Your task to perform on an android device: open the mobile data screen to see how much data has been used Image 0: 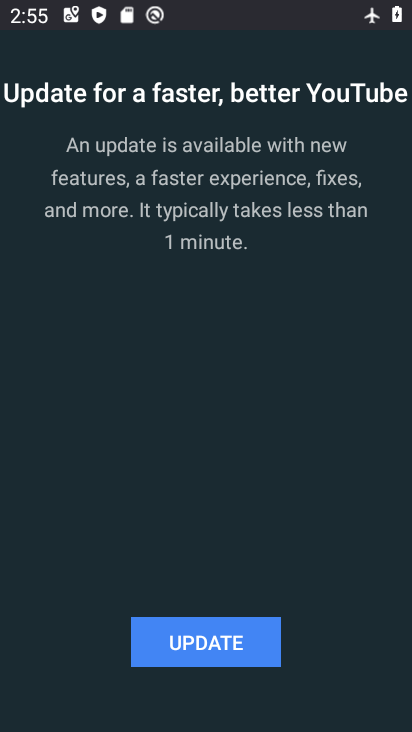
Step 0: press home button
Your task to perform on an android device: open the mobile data screen to see how much data has been used Image 1: 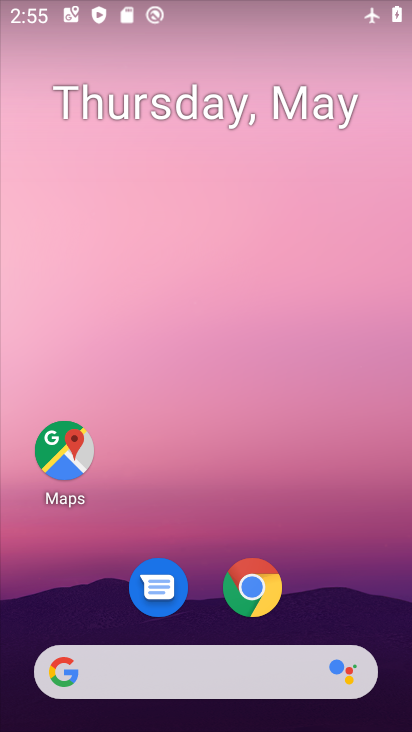
Step 1: drag from (266, 703) to (330, 174)
Your task to perform on an android device: open the mobile data screen to see how much data has been used Image 2: 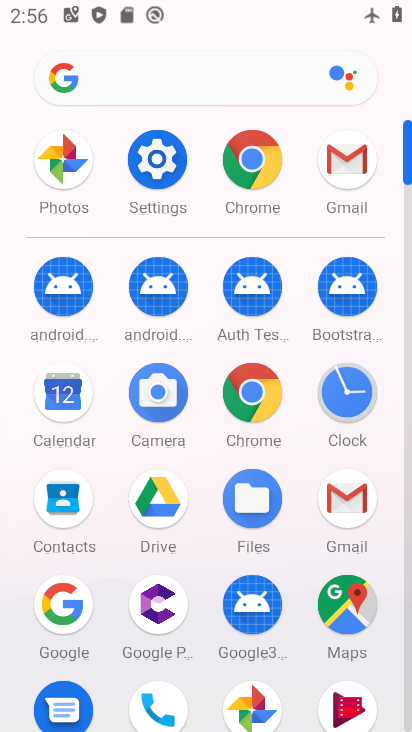
Step 2: click (175, 177)
Your task to perform on an android device: open the mobile data screen to see how much data has been used Image 3: 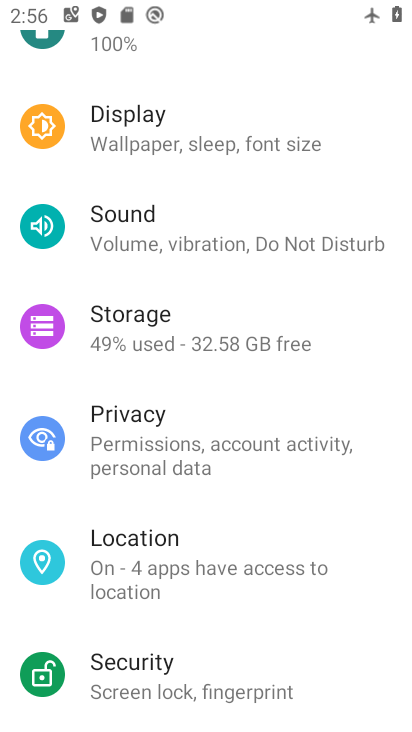
Step 3: drag from (215, 517) to (230, 318)
Your task to perform on an android device: open the mobile data screen to see how much data has been used Image 4: 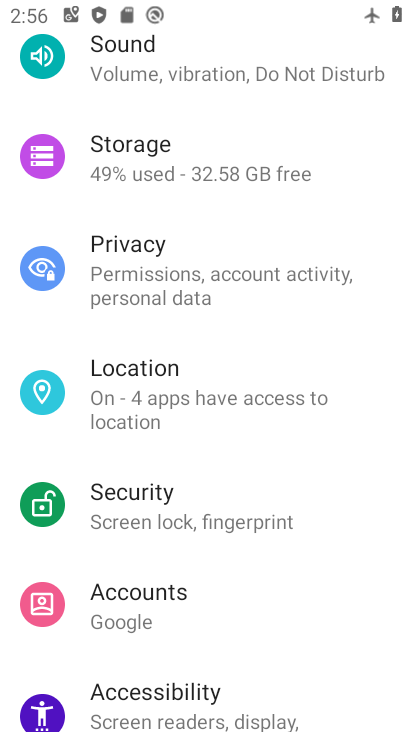
Step 4: drag from (221, 227) to (186, 715)
Your task to perform on an android device: open the mobile data screen to see how much data has been used Image 5: 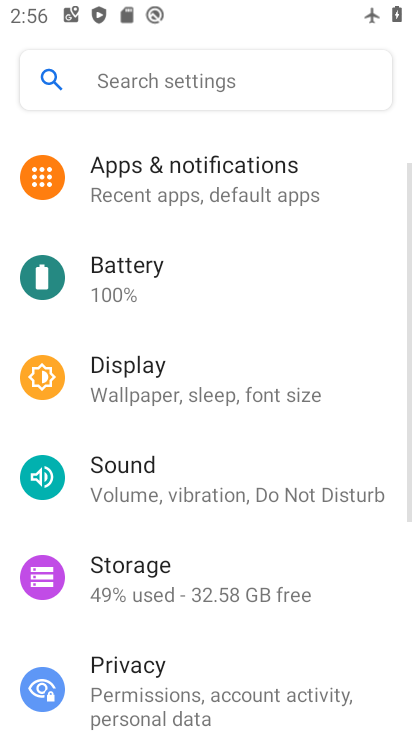
Step 5: drag from (206, 280) to (212, 605)
Your task to perform on an android device: open the mobile data screen to see how much data has been used Image 6: 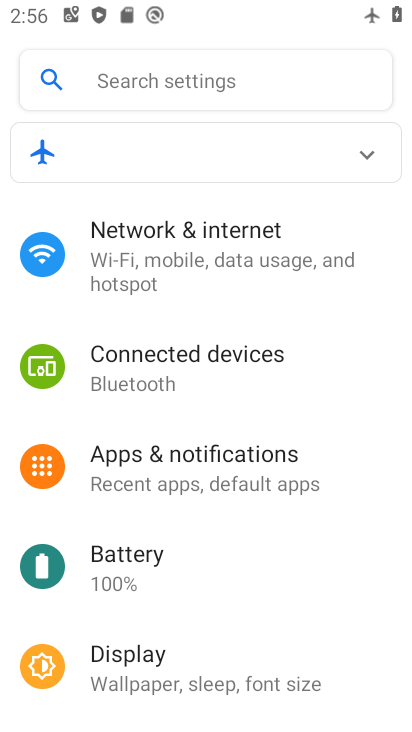
Step 6: click (228, 258)
Your task to perform on an android device: open the mobile data screen to see how much data has been used Image 7: 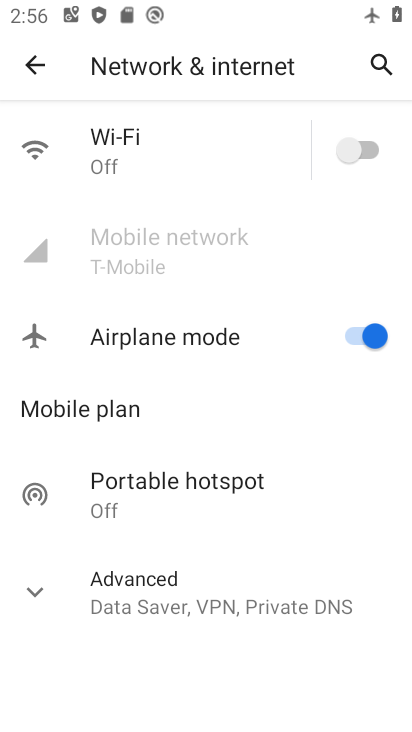
Step 7: task complete